Your task to perform on an android device: all mails in gmail Image 0: 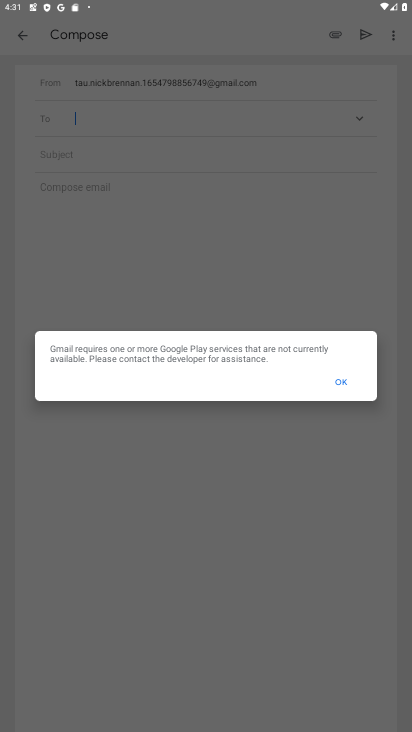
Step 0: press home button
Your task to perform on an android device: all mails in gmail Image 1: 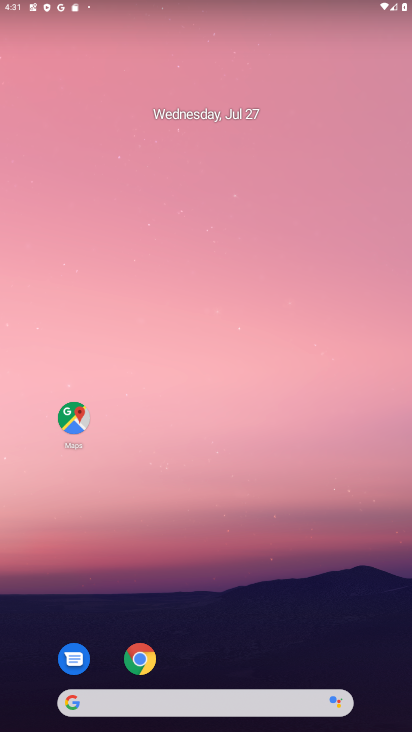
Step 1: drag from (352, 626) to (287, 65)
Your task to perform on an android device: all mails in gmail Image 2: 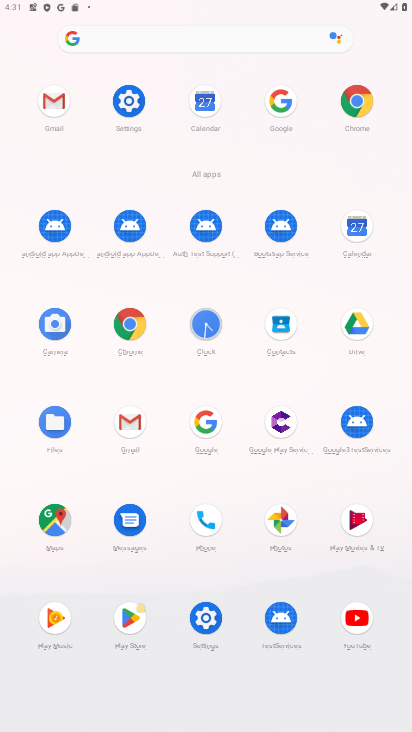
Step 2: click (124, 427)
Your task to perform on an android device: all mails in gmail Image 3: 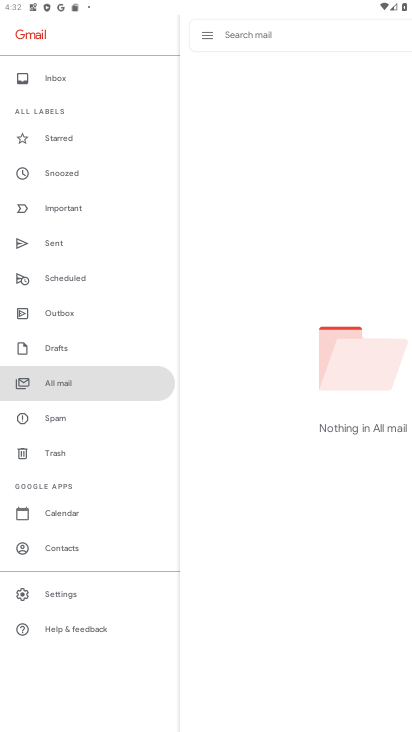
Step 3: task complete